Your task to perform on an android device: Do I have any events tomorrow? Image 0: 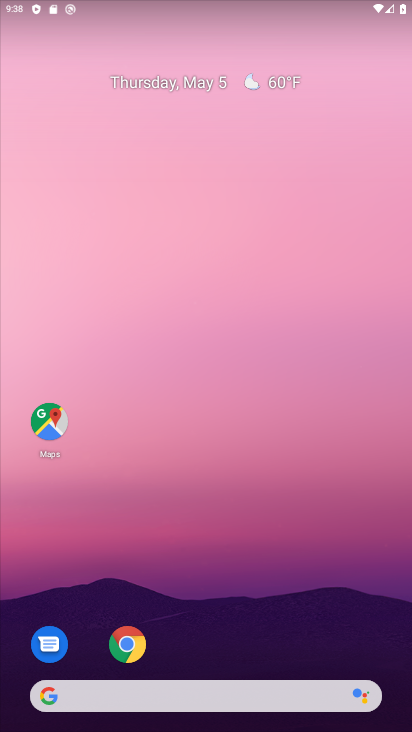
Step 0: drag from (344, 583) to (333, 99)
Your task to perform on an android device: Do I have any events tomorrow? Image 1: 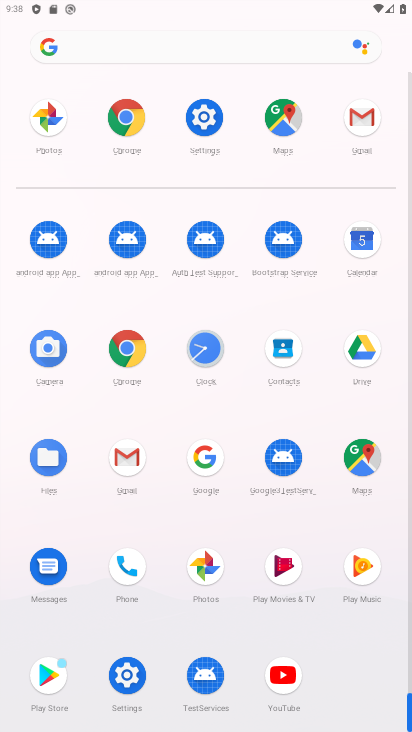
Step 1: click (374, 237)
Your task to perform on an android device: Do I have any events tomorrow? Image 2: 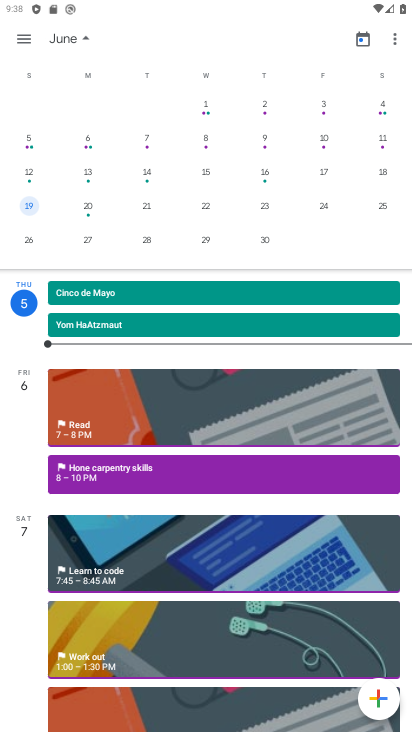
Step 2: click (150, 136)
Your task to perform on an android device: Do I have any events tomorrow? Image 3: 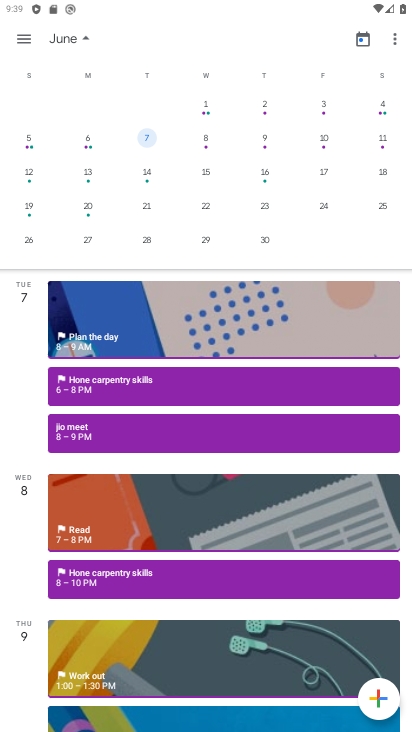
Step 3: task complete